Your task to perform on an android device: Turn on the flashlight Image 0: 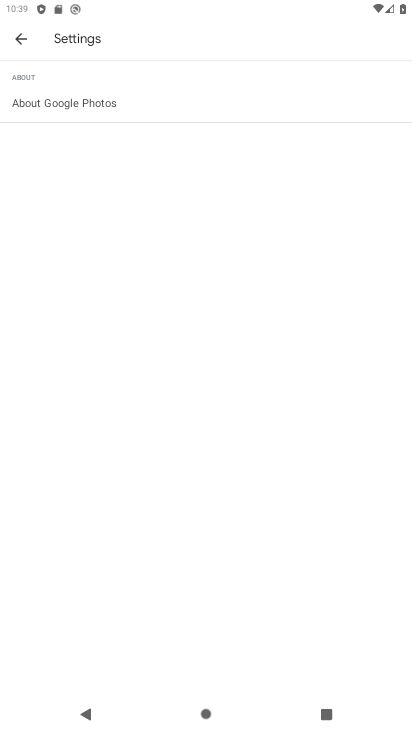
Step 0: press home button
Your task to perform on an android device: Turn on the flashlight Image 1: 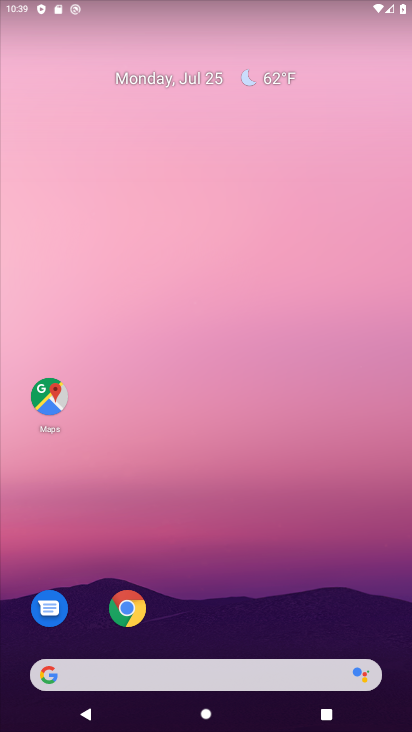
Step 1: drag from (183, 5) to (195, 482)
Your task to perform on an android device: Turn on the flashlight Image 2: 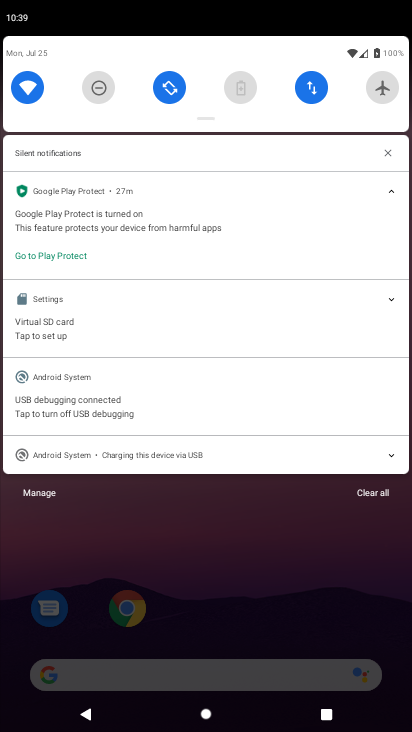
Step 2: drag from (192, 76) to (254, 509)
Your task to perform on an android device: Turn on the flashlight Image 3: 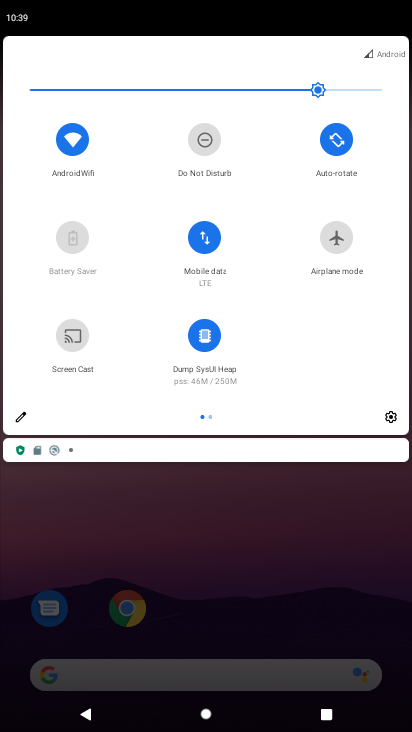
Step 3: drag from (319, 307) to (0, 427)
Your task to perform on an android device: Turn on the flashlight Image 4: 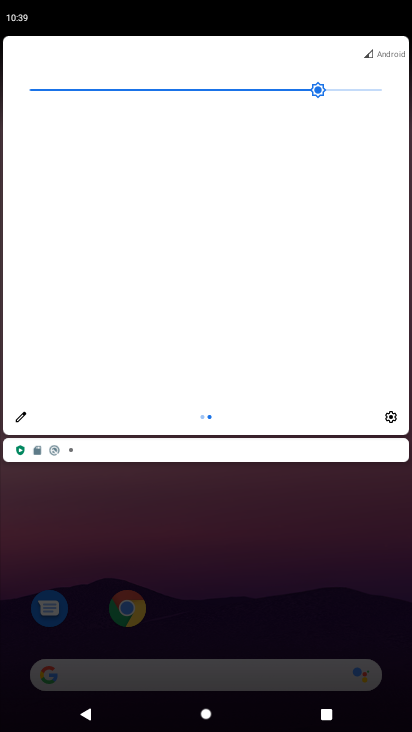
Step 4: click (22, 421)
Your task to perform on an android device: Turn on the flashlight Image 5: 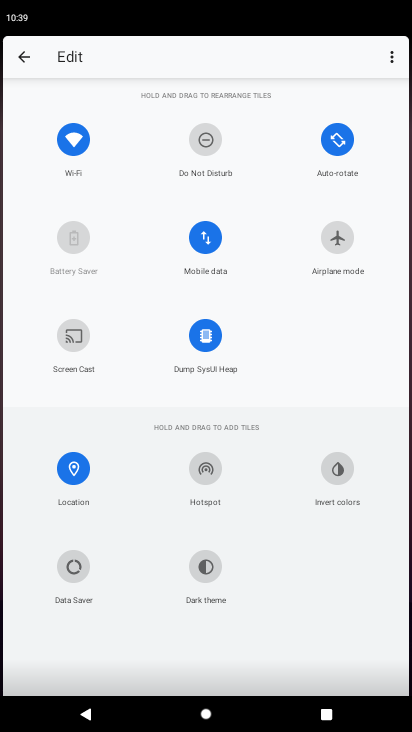
Step 5: task complete